Your task to perform on an android device: Open Google Chrome and click the shortcut for Amazon.com Image 0: 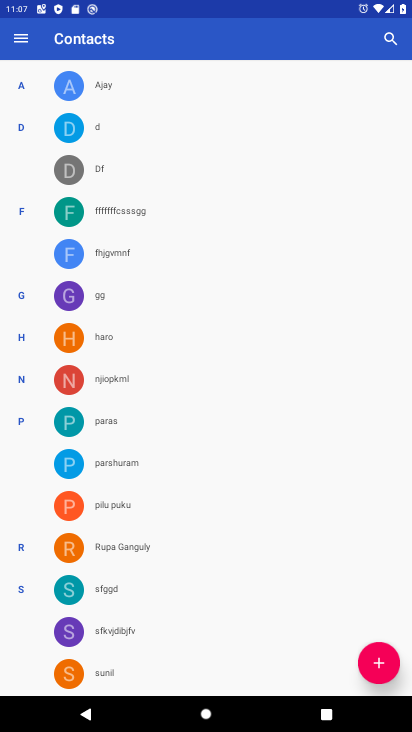
Step 0: press home button
Your task to perform on an android device: Open Google Chrome and click the shortcut for Amazon.com Image 1: 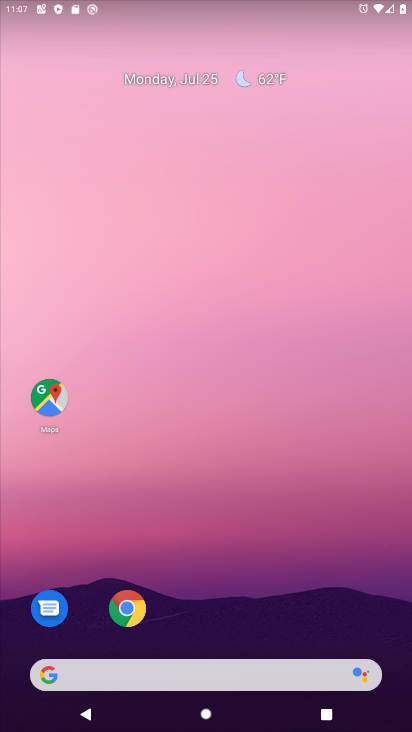
Step 1: click (133, 607)
Your task to perform on an android device: Open Google Chrome and click the shortcut for Amazon.com Image 2: 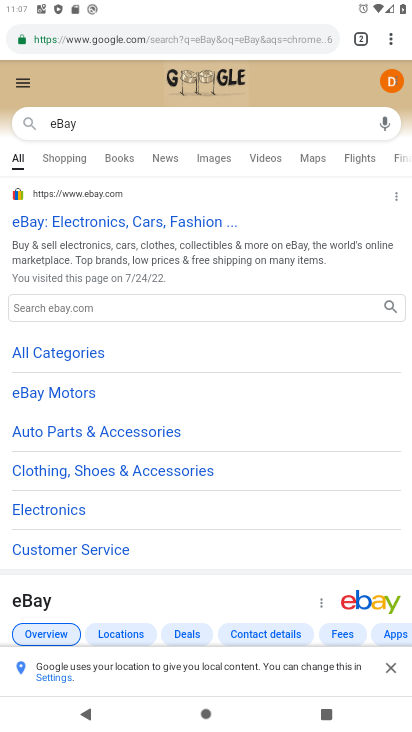
Step 2: click (391, 27)
Your task to perform on an android device: Open Google Chrome and click the shortcut for Amazon.com Image 3: 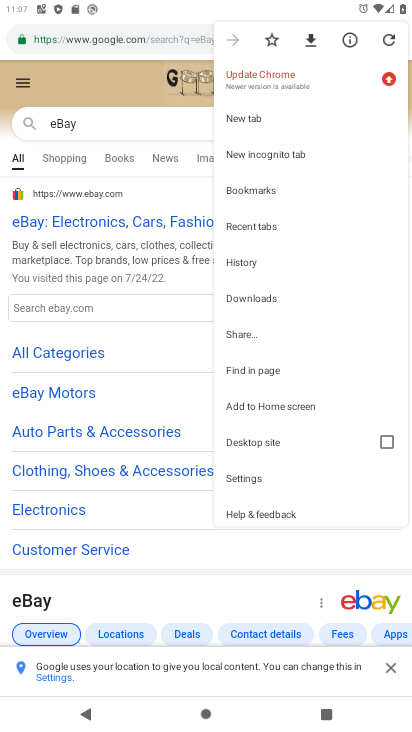
Step 3: click (259, 121)
Your task to perform on an android device: Open Google Chrome and click the shortcut for Amazon.com Image 4: 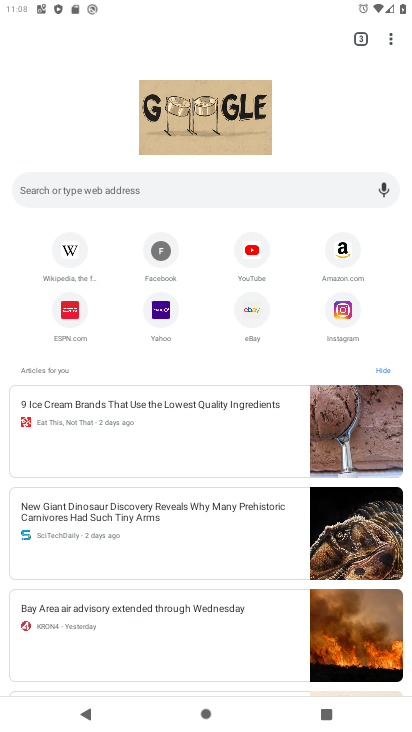
Step 4: click (335, 251)
Your task to perform on an android device: Open Google Chrome and click the shortcut for Amazon.com Image 5: 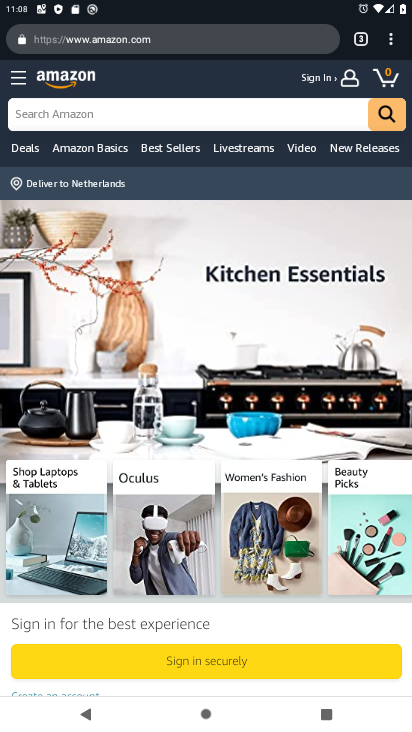
Step 5: task complete